Your task to perform on an android device: toggle notification dots Image 0: 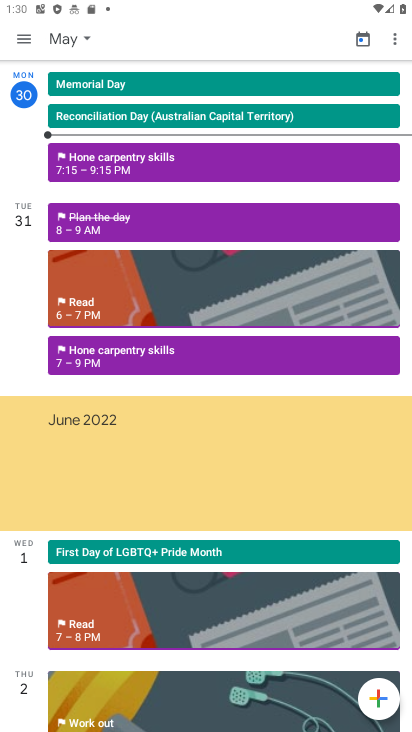
Step 0: press home button
Your task to perform on an android device: toggle notification dots Image 1: 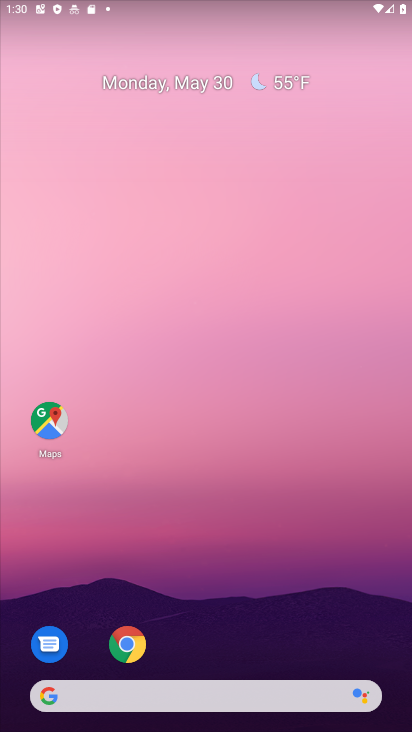
Step 1: drag from (313, 582) to (270, 78)
Your task to perform on an android device: toggle notification dots Image 2: 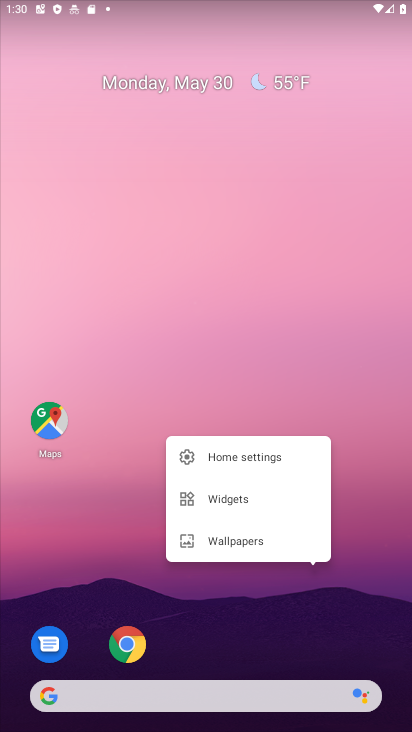
Step 2: click (327, 593)
Your task to perform on an android device: toggle notification dots Image 3: 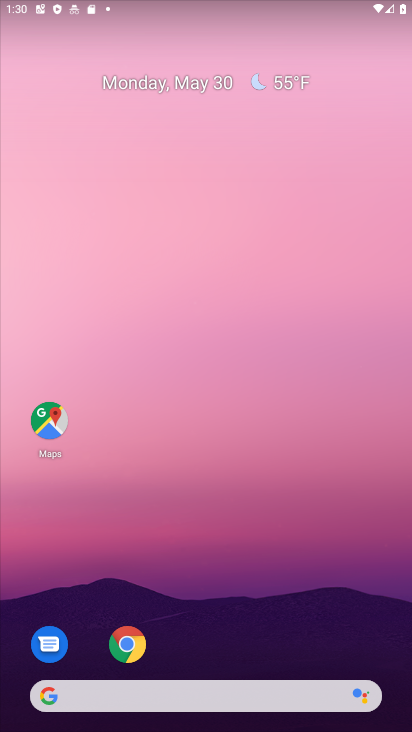
Step 3: drag from (258, 624) to (274, 108)
Your task to perform on an android device: toggle notification dots Image 4: 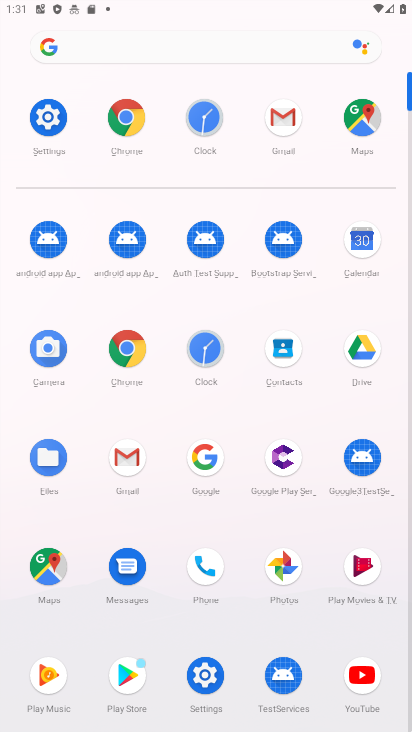
Step 4: click (36, 116)
Your task to perform on an android device: toggle notification dots Image 5: 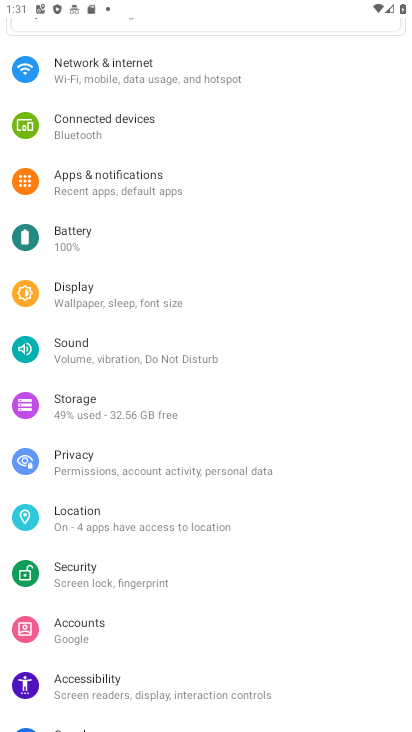
Step 5: click (219, 200)
Your task to perform on an android device: toggle notification dots Image 6: 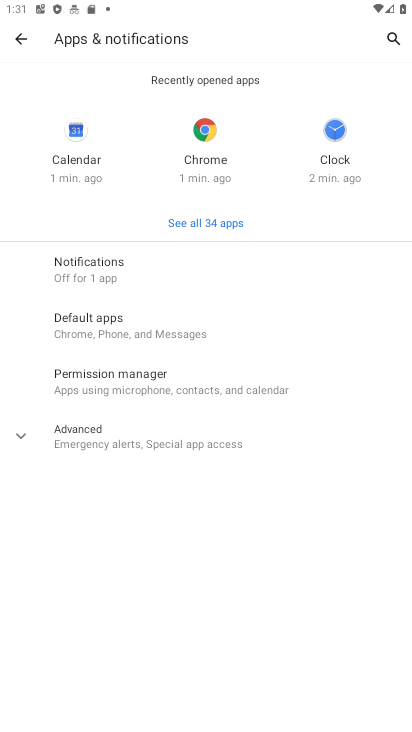
Step 6: task complete